Your task to perform on an android device: uninstall "Facebook Lite" Image 0: 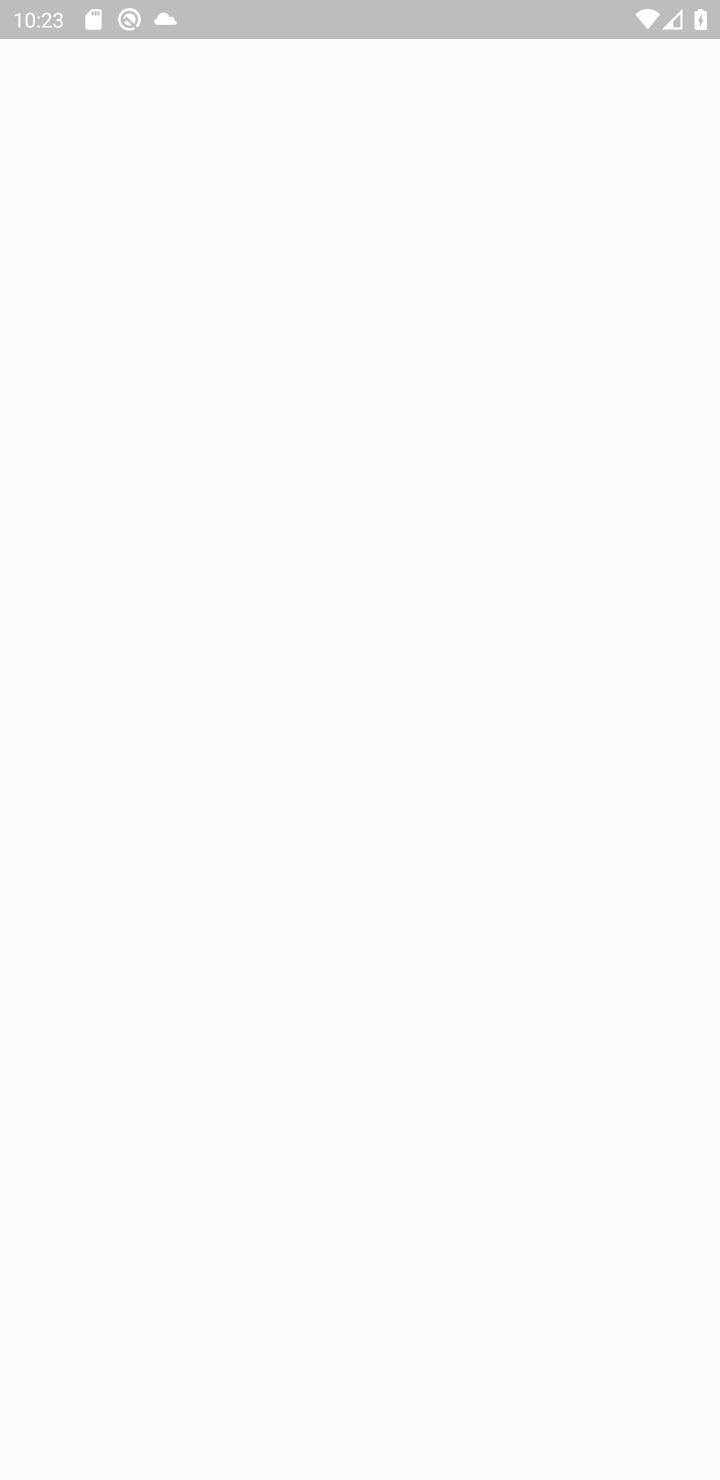
Step 0: press home button
Your task to perform on an android device: uninstall "Facebook Lite" Image 1: 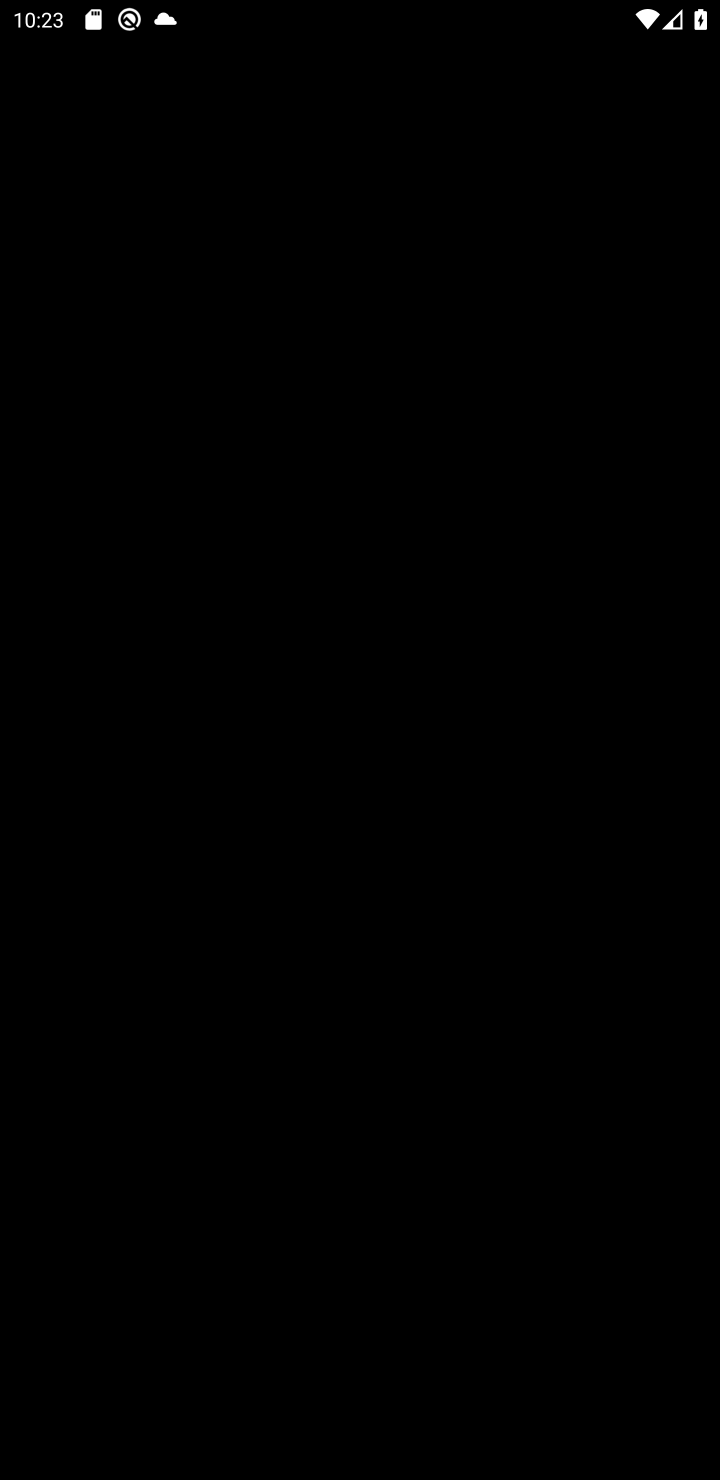
Step 1: press home button
Your task to perform on an android device: uninstall "Facebook Lite" Image 2: 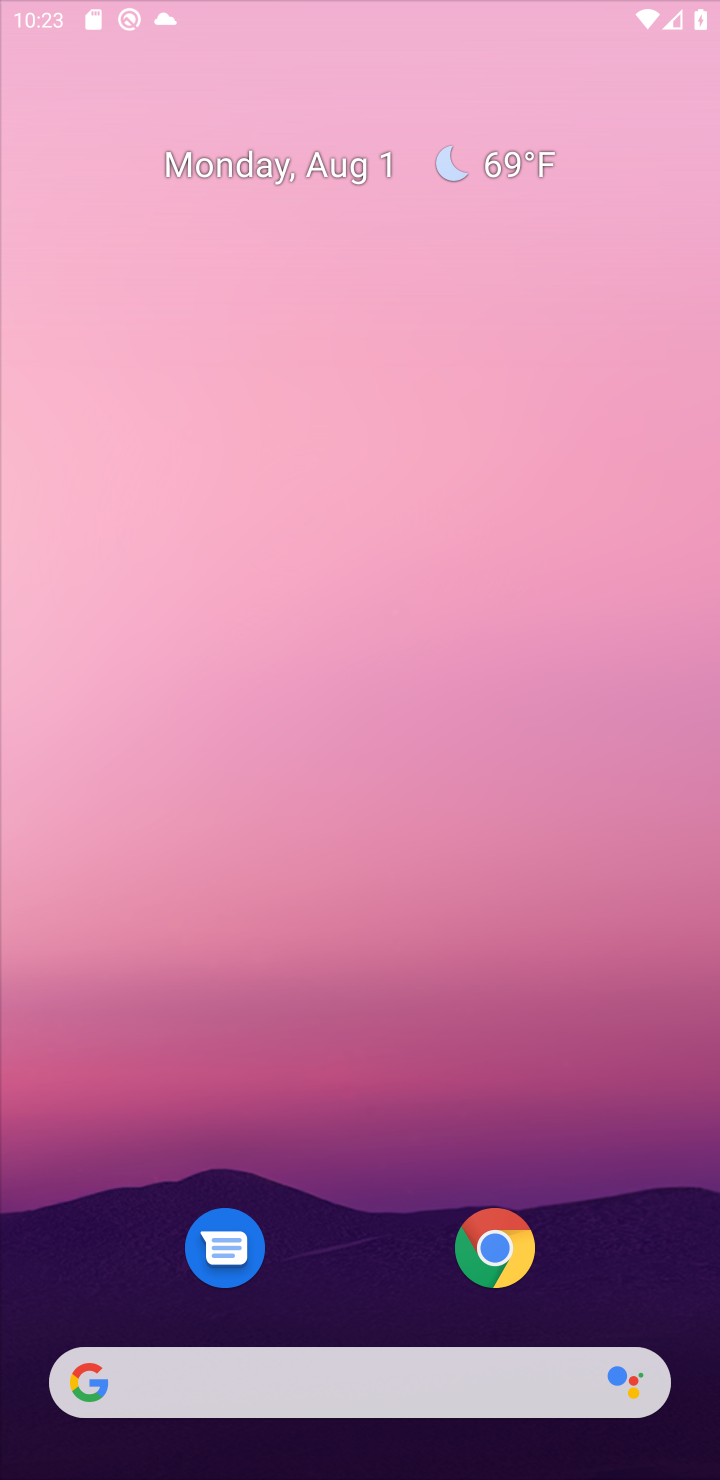
Step 2: press home button
Your task to perform on an android device: uninstall "Facebook Lite" Image 3: 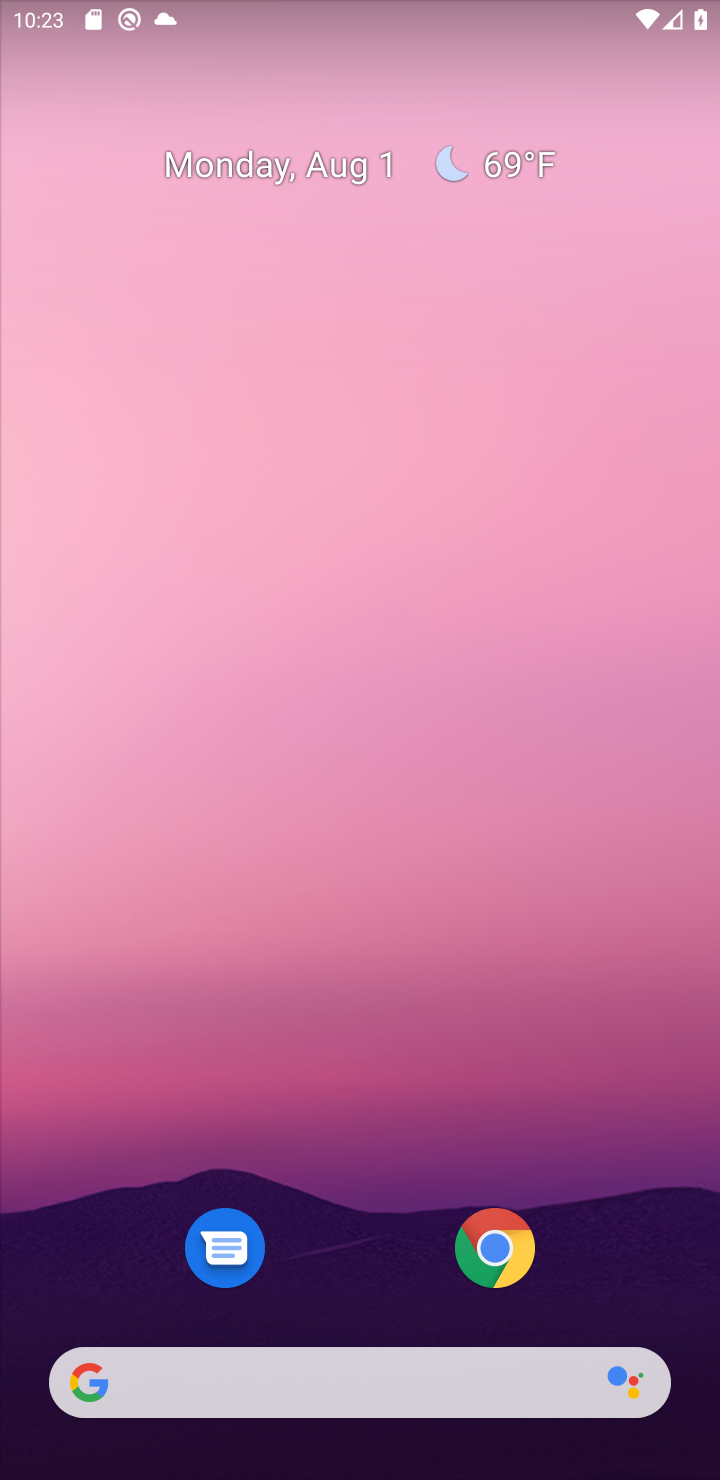
Step 3: drag from (338, 1332) to (446, 0)
Your task to perform on an android device: uninstall "Facebook Lite" Image 4: 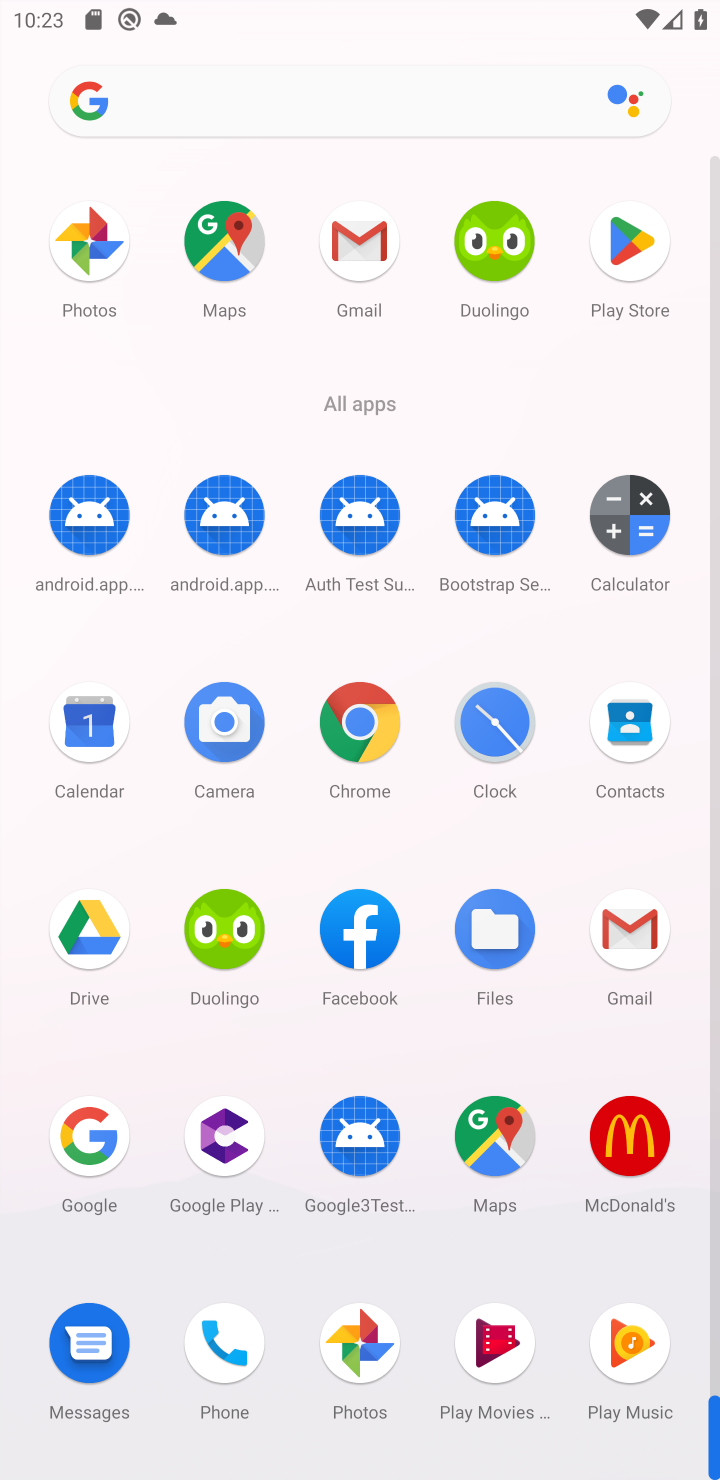
Step 4: click (638, 246)
Your task to perform on an android device: uninstall "Facebook Lite" Image 5: 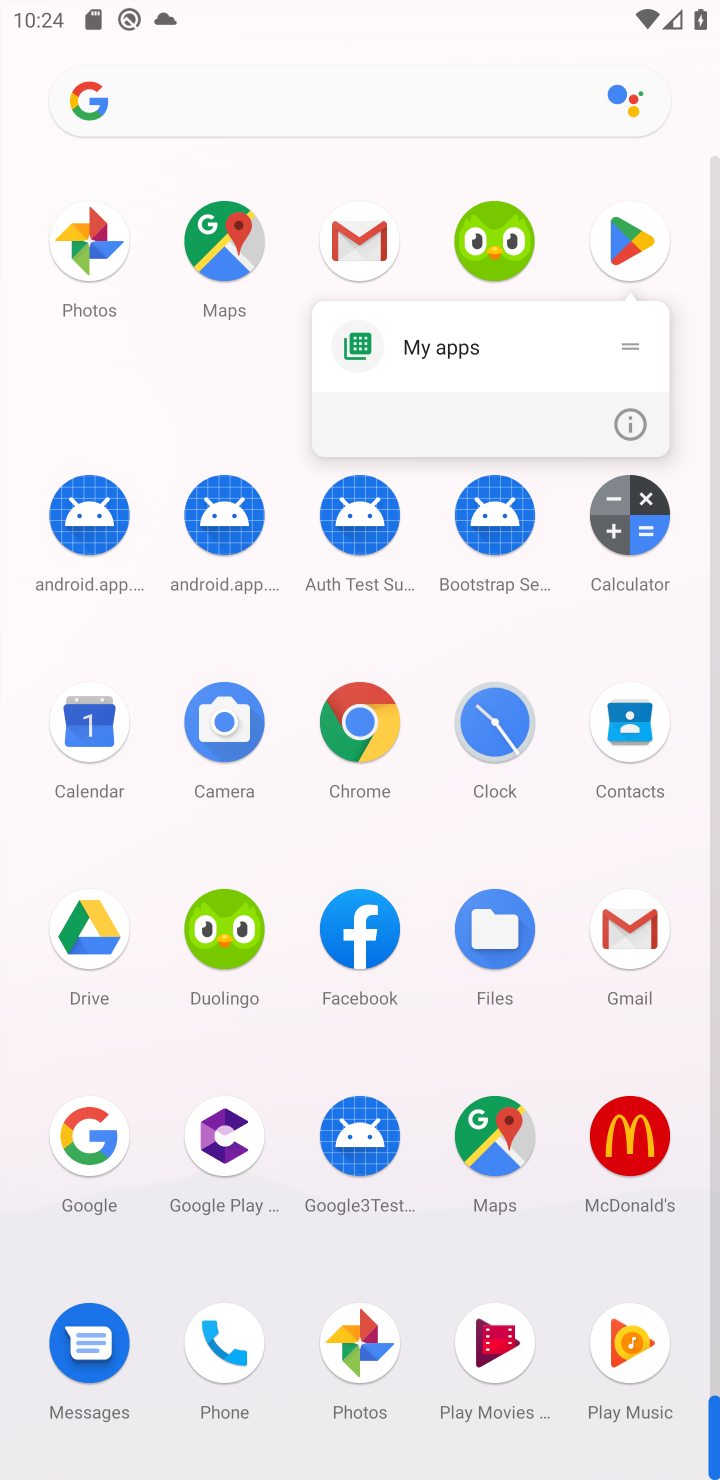
Step 5: drag from (418, 1310) to (461, 631)
Your task to perform on an android device: uninstall "Facebook Lite" Image 6: 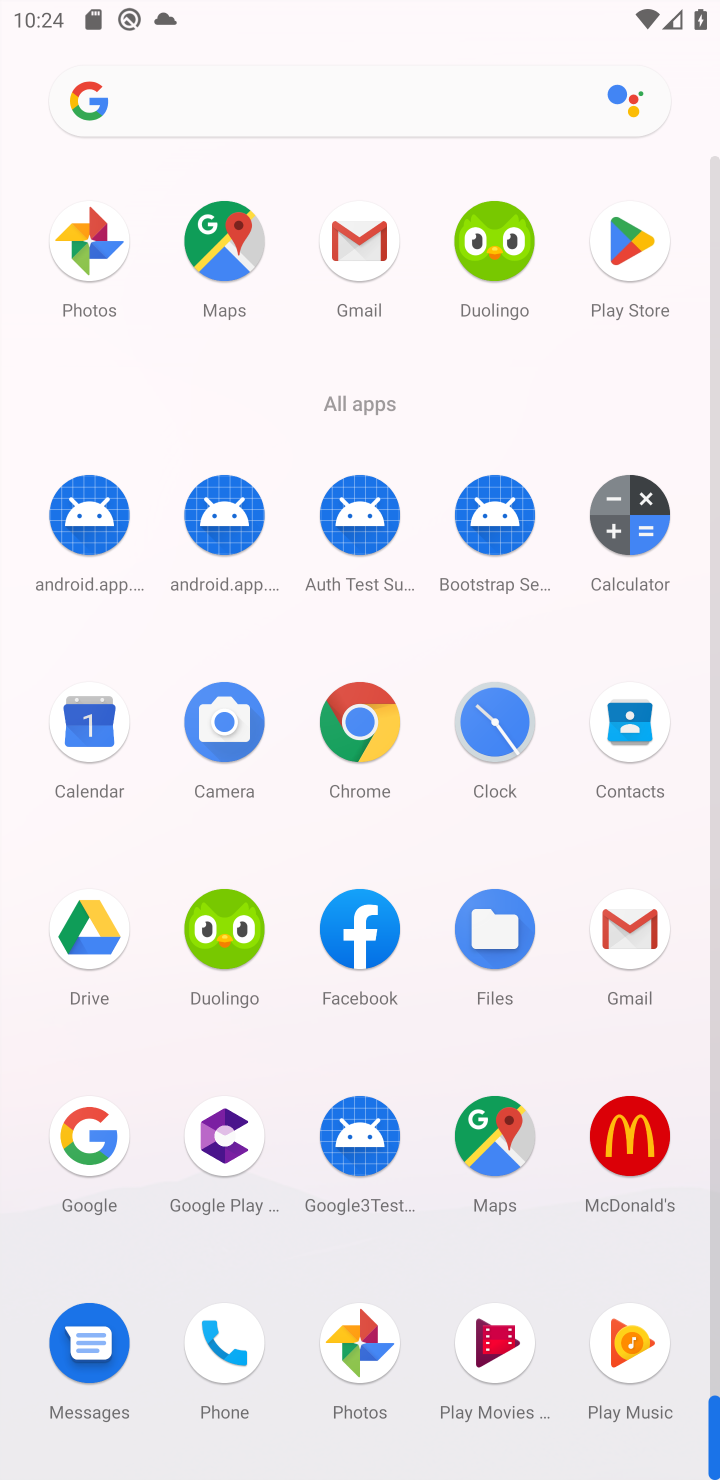
Step 6: drag from (434, 1304) to (478, 672)
Your task to perform on an android device: uninstall "Facebook Lite" Image 7: 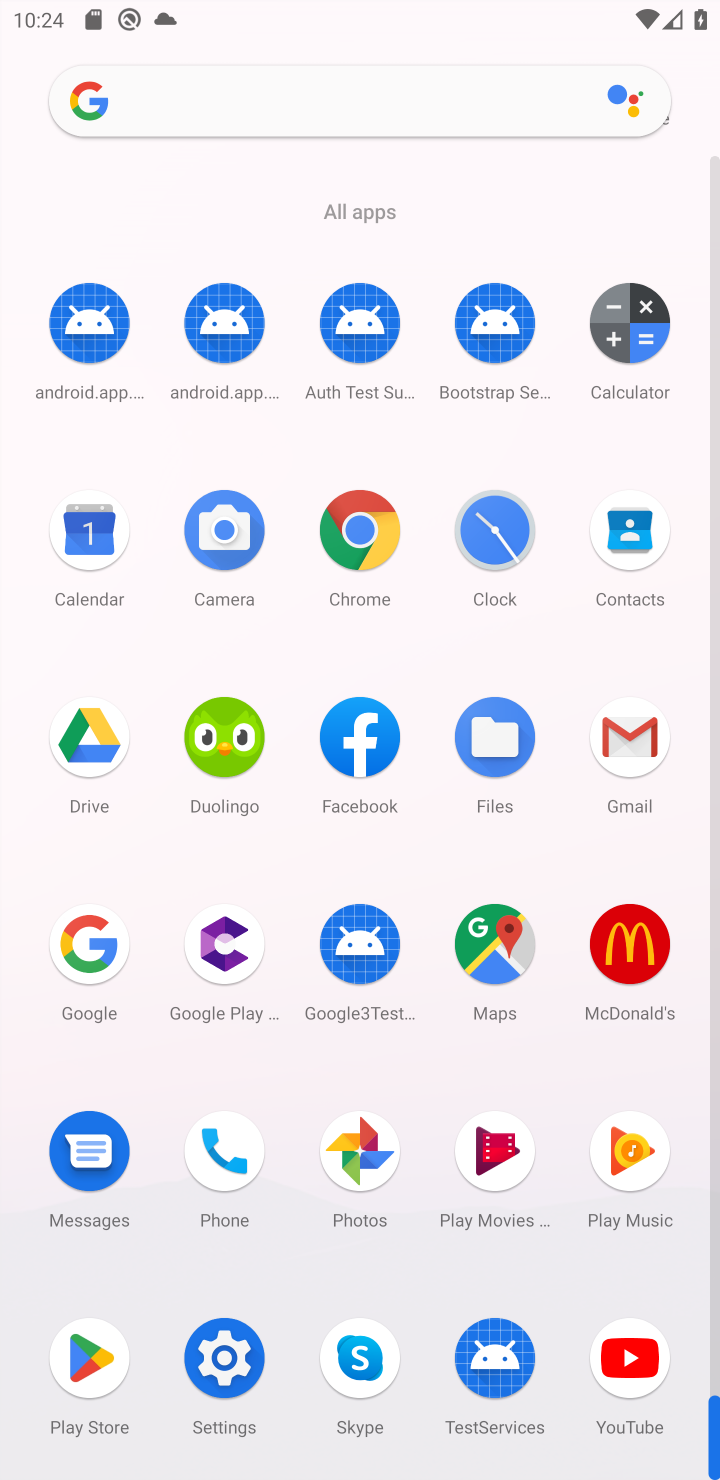
Step 7: click (94, 1371)
Your task to perform on an android device: uninstall "Facebook Lite" Image 8: 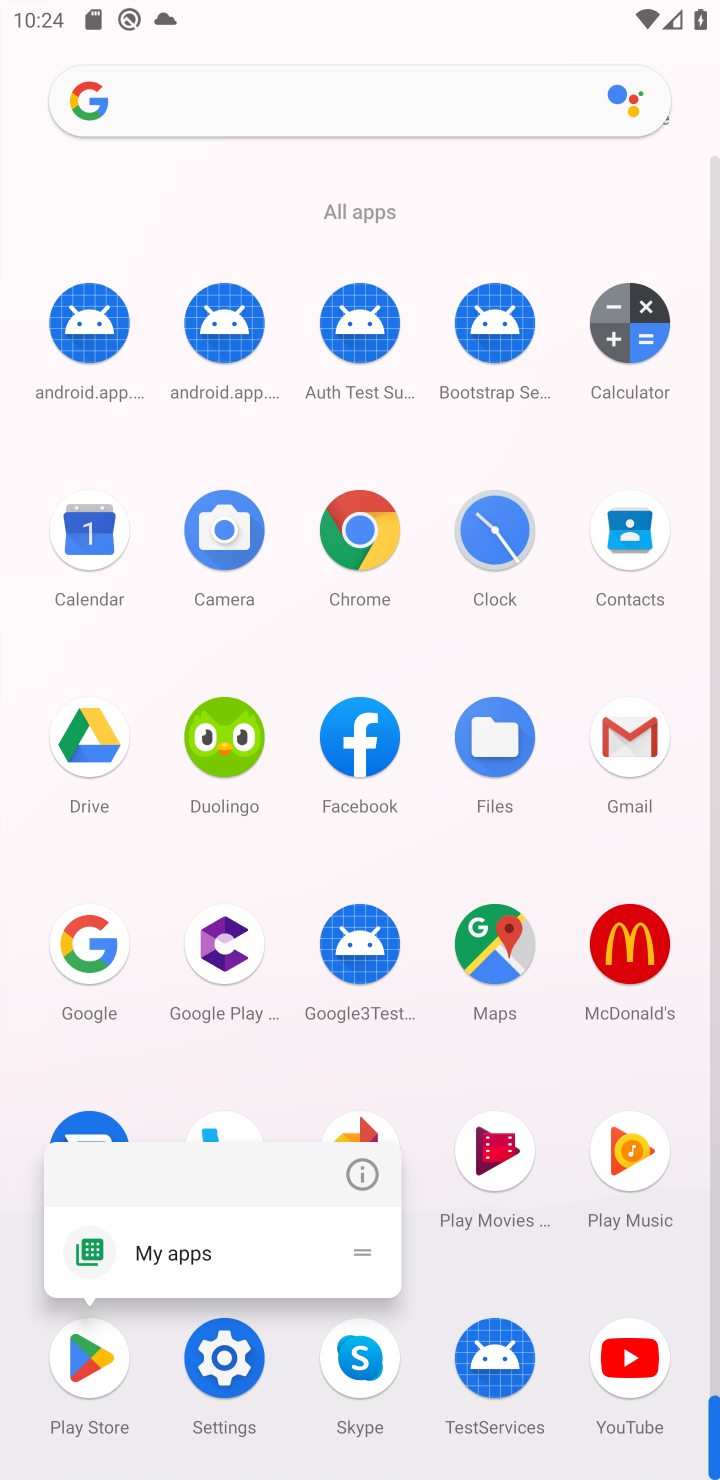
Step 8: click (84, 1388)
Your task to perform on an android device: uninstall "Facebook Lite" Image 9: 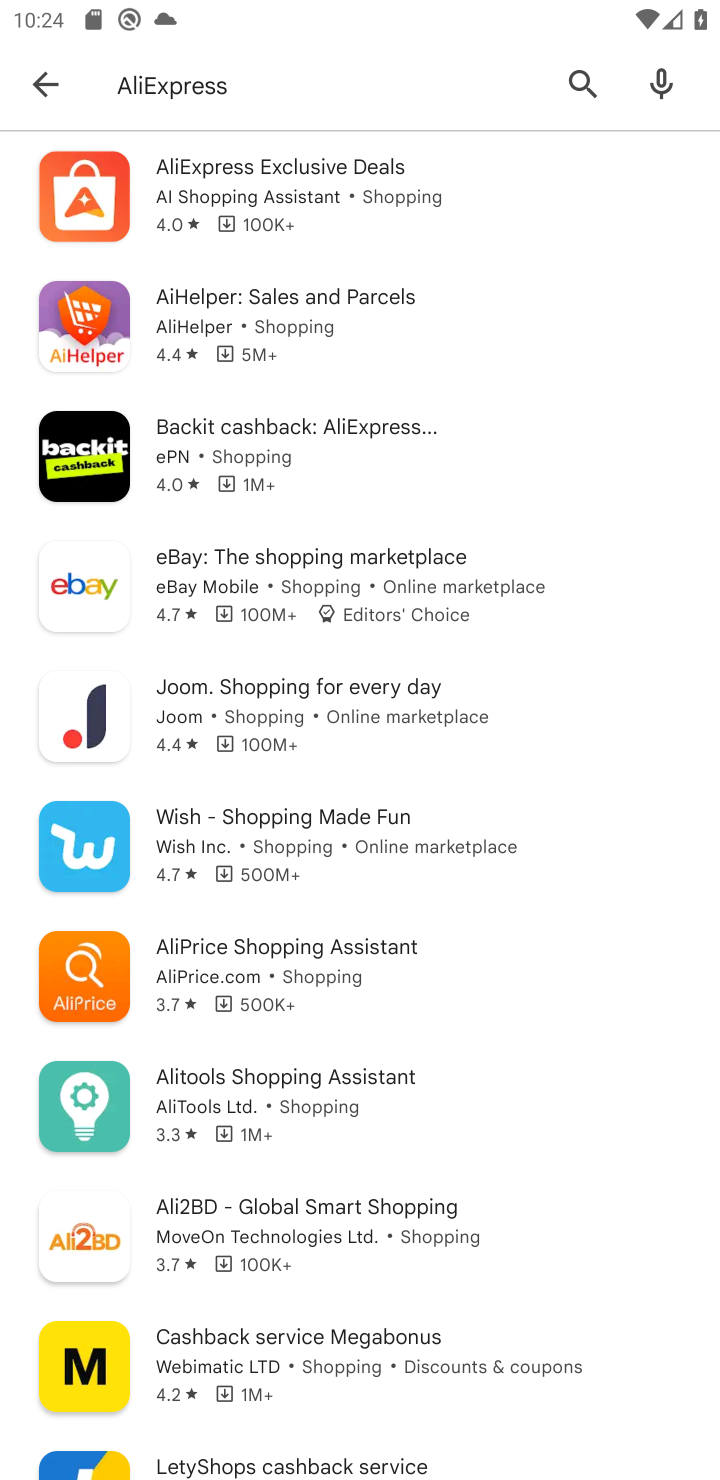
Step 9: click (421, 95)
Your task to perform on an android device: uninstall "Facebook Lite" Image 10: 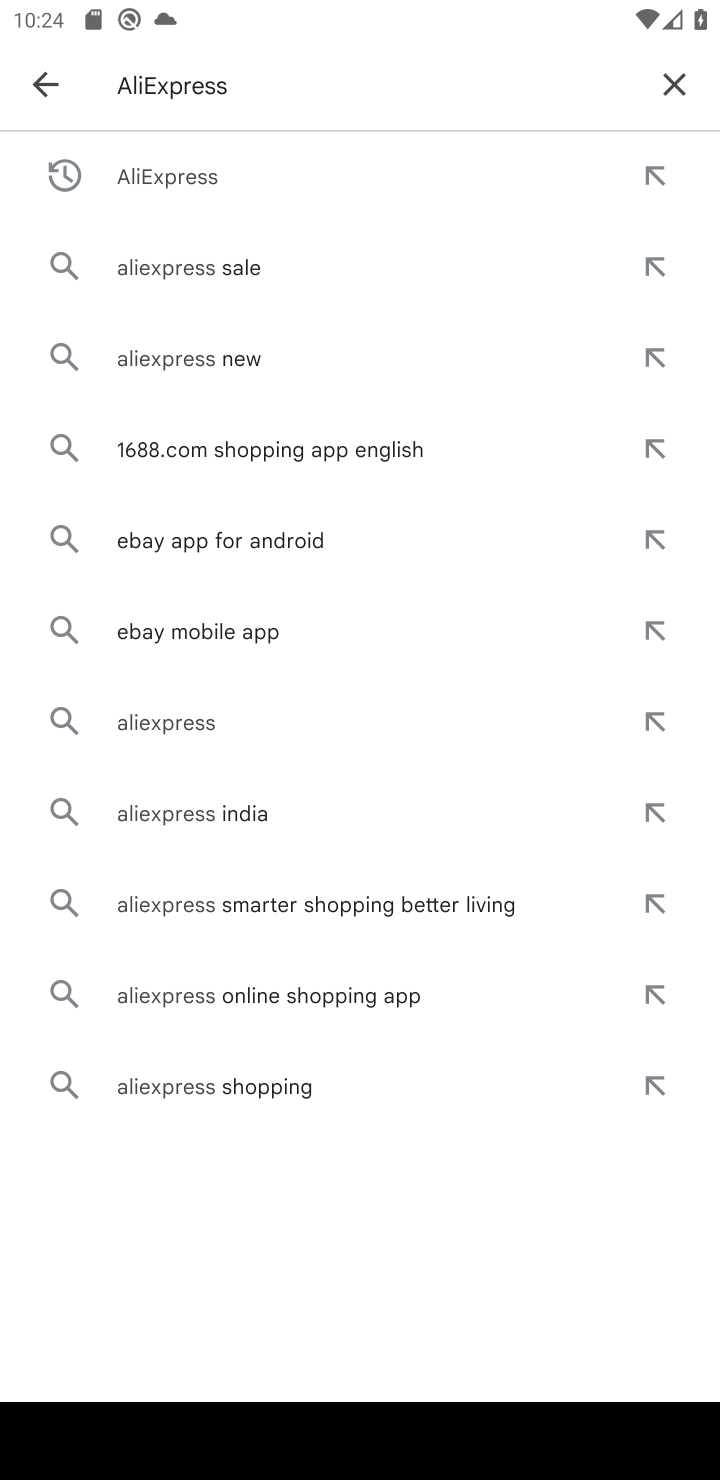
Step 10: click (674, 80)
Your task to perform on an android device: uninstall "Facebook Lite" Image 11: 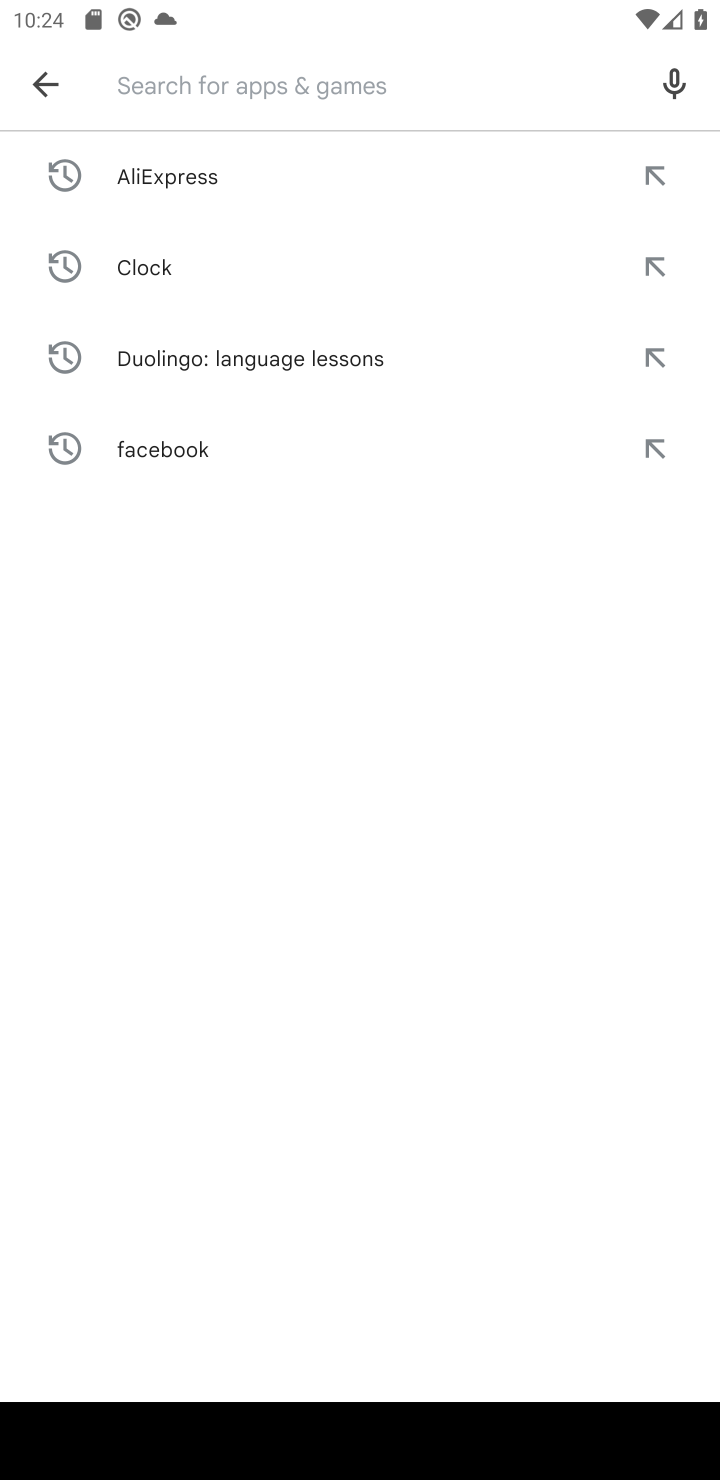
Step 11: type "Facebook Lite"
Your task to perform on an android device: uninstall "Facebook Lite" Image 12: 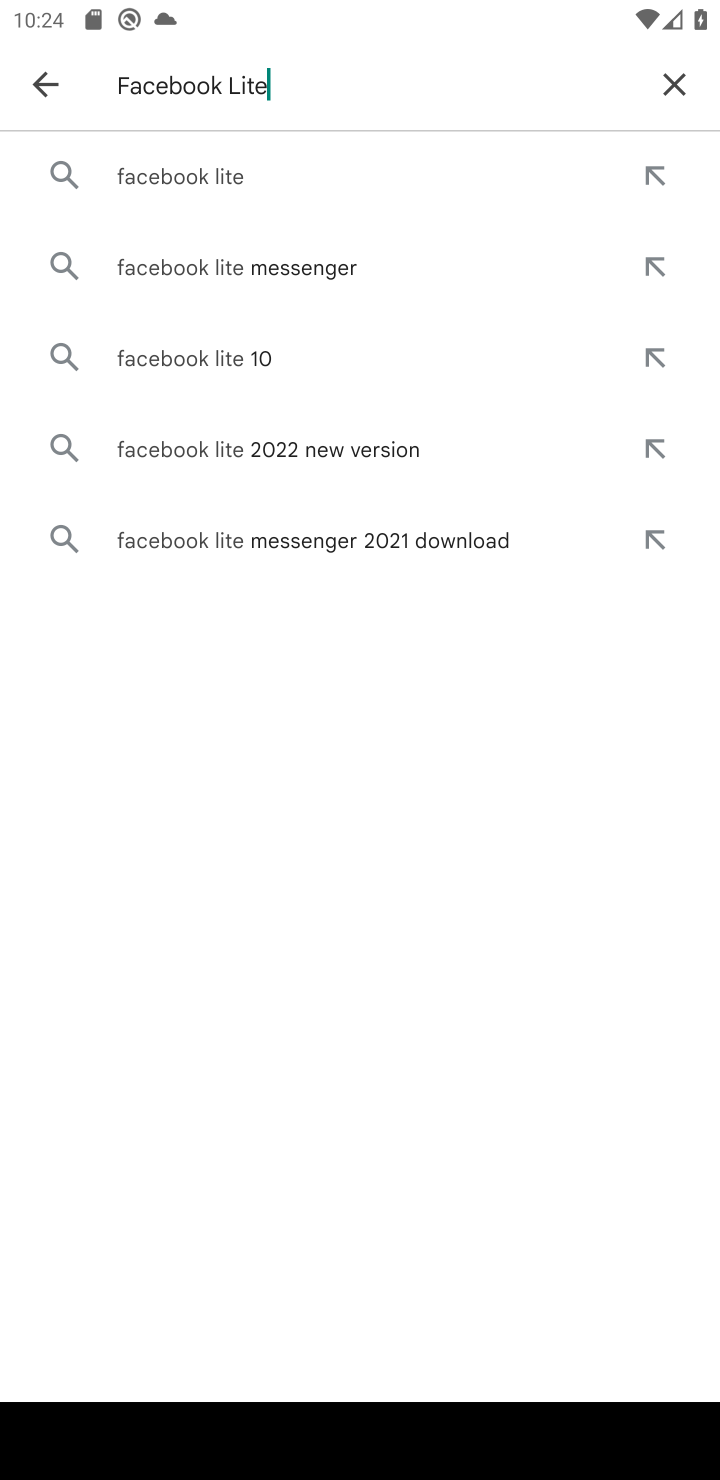
Step 12: click (348, 173)
Your task to perform on an android device: uninstall "Facebook Lite" Image 13: 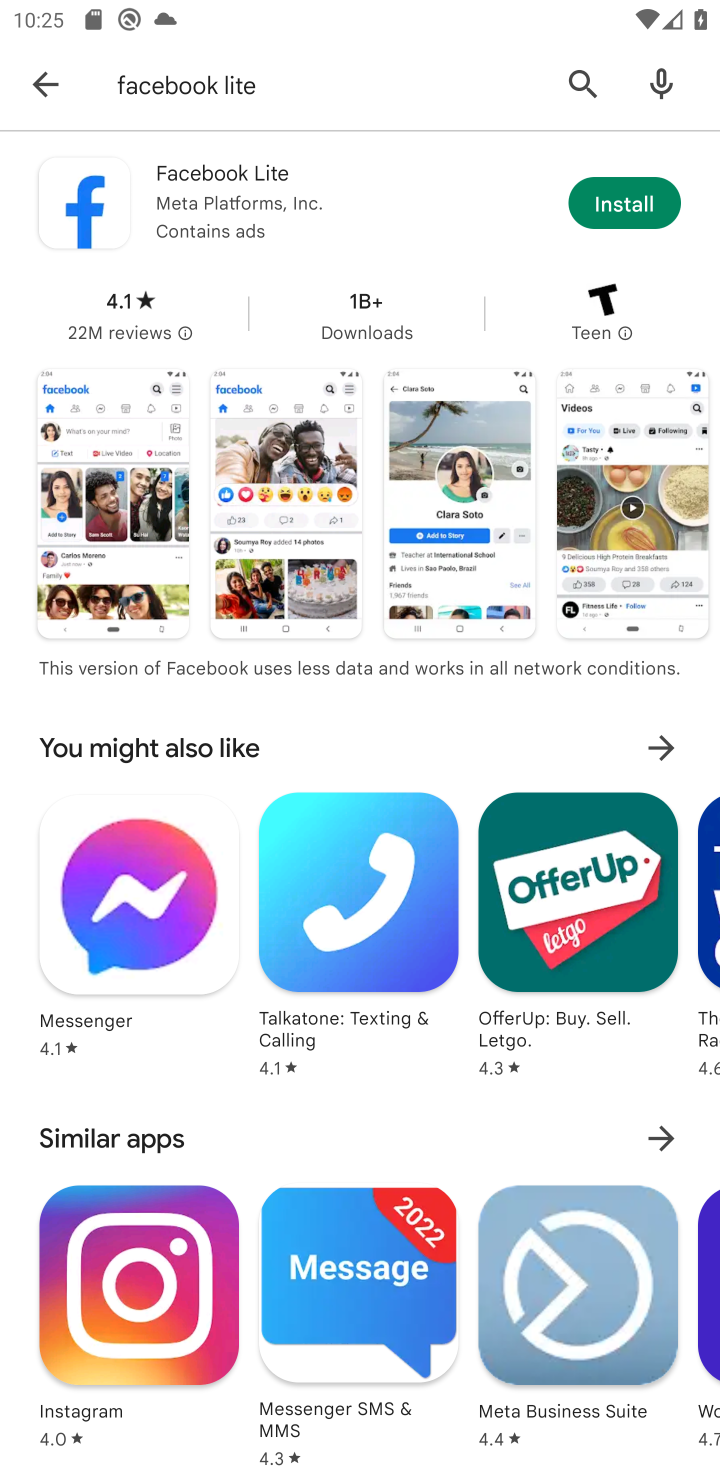
Step 13: press home button
Your task to perform on an android device: uninstall "Facebook Lite" Image 14: 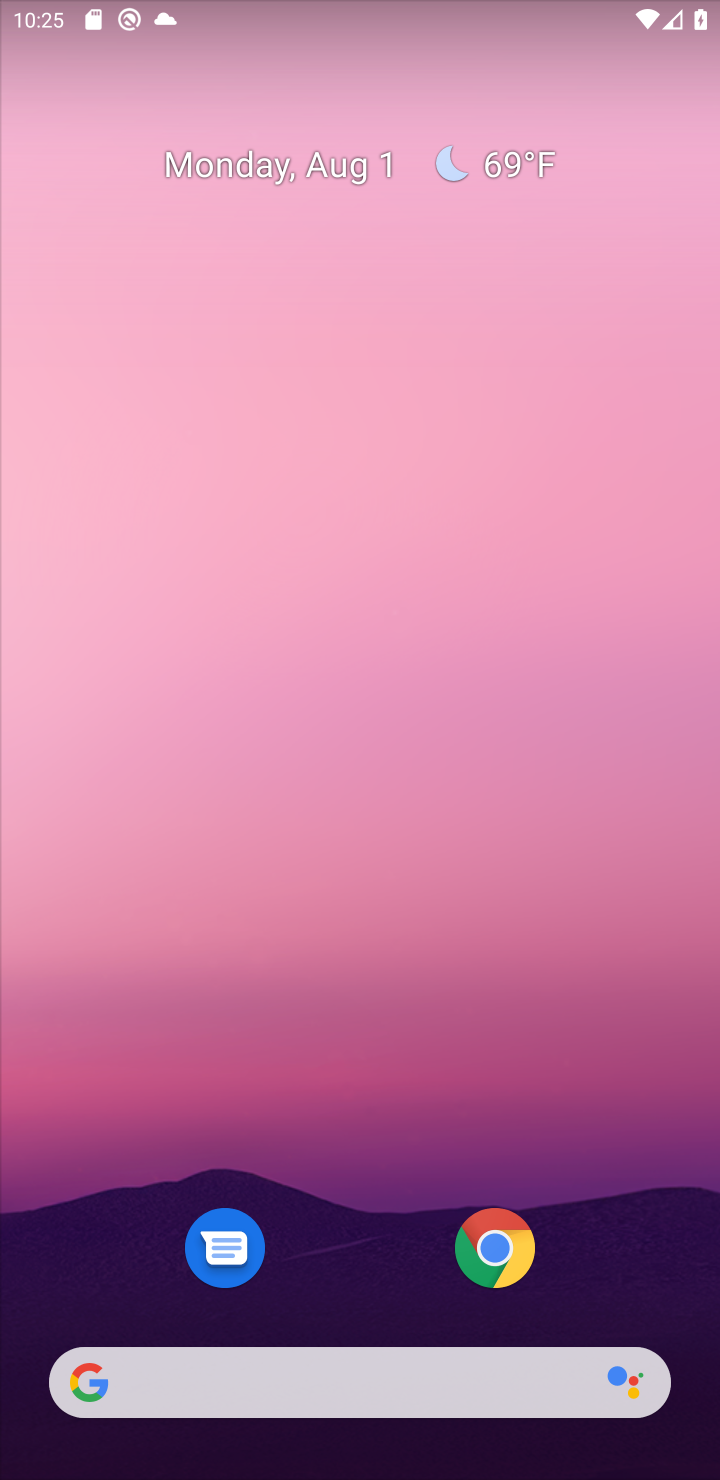
Step 14: drag from (605, 1038) to (600, 176)
Your task to perform on an android device: uninstall "Facebook Lite" Image 15: 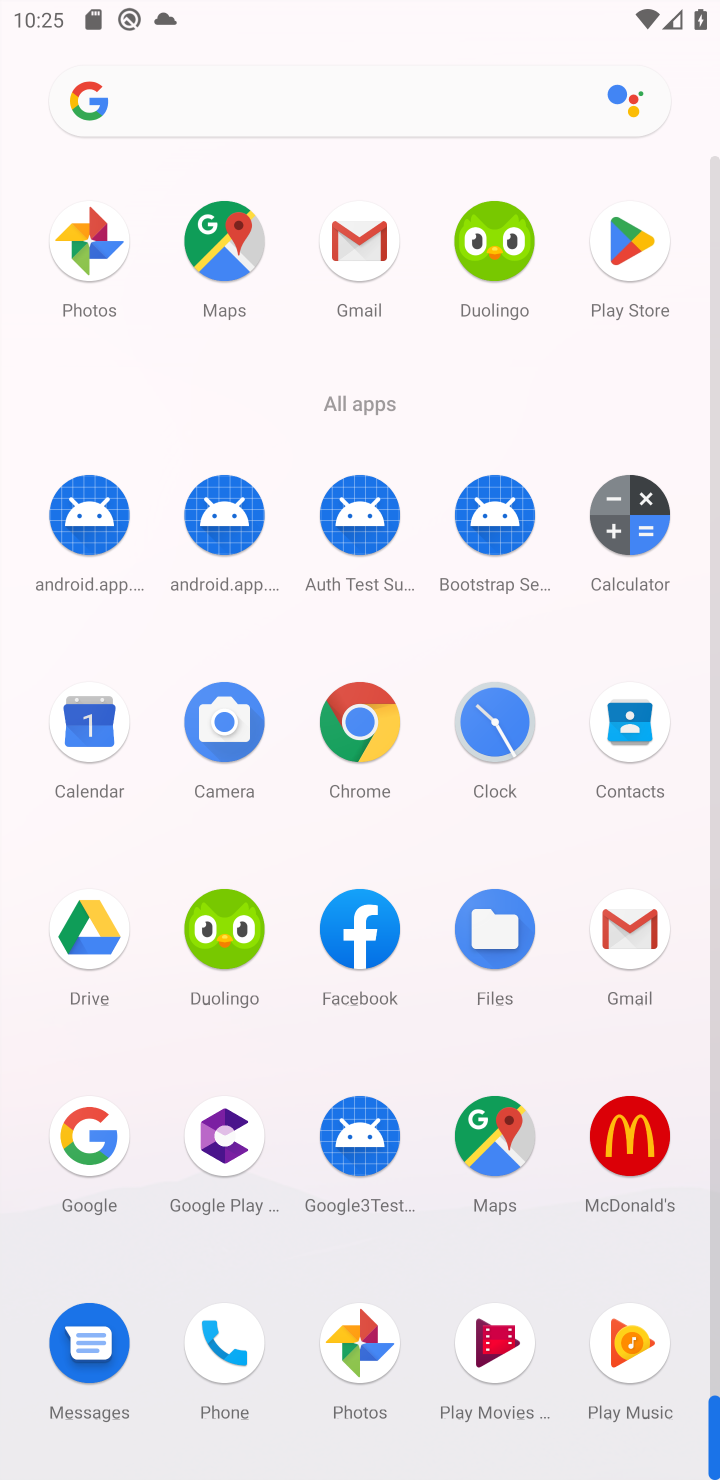
Step 15: click (645, 270)
Your task to perform on an android device: uninstall "Facebook Lite" Image 16: 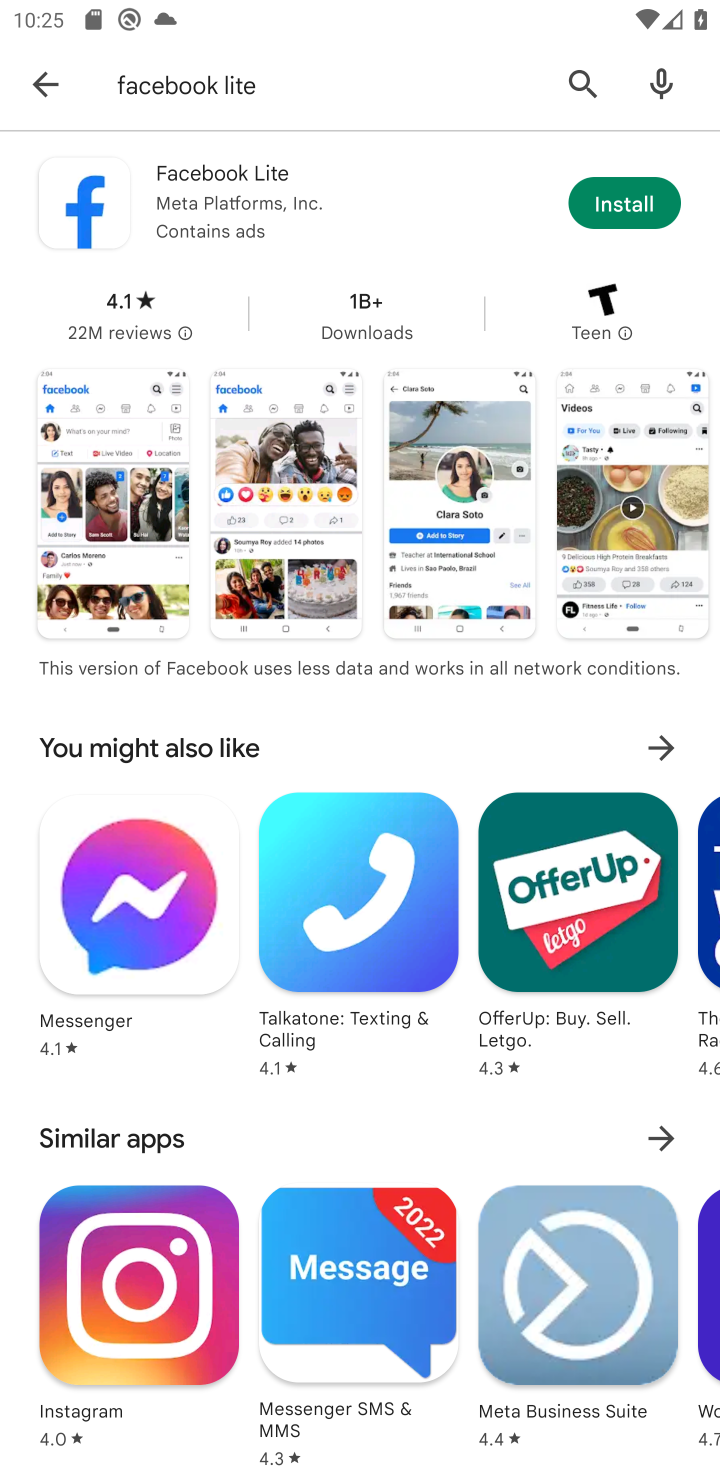
Step 16: task complete